Your task to perform on an android device: open chrome and create a bookmark for the current page Image 0: 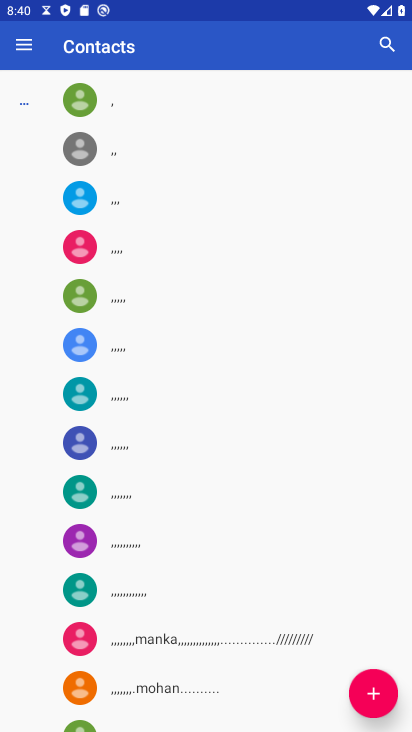
Step 0: press home button
Your task to perform on an android device: open chrome and create a bookmark for the current page Image 1: 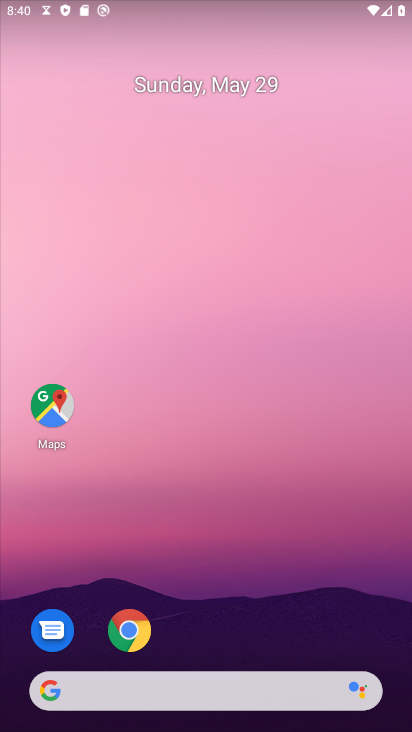
Step 1: click (138, 629)
Your task to perform on an android device: open chrome and create a bookmark for the current page Image 2: 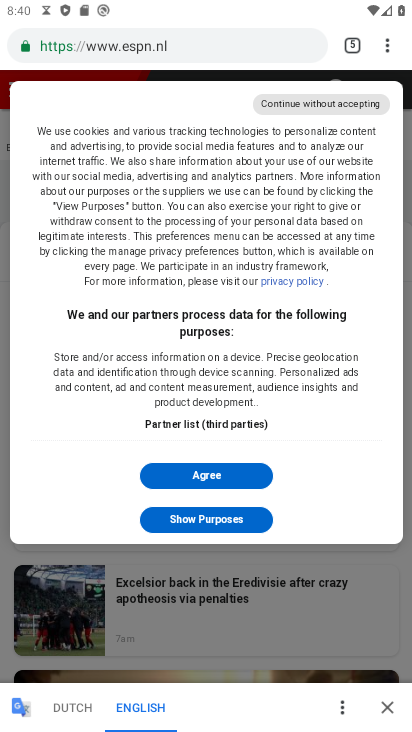
Step 2: click (388, 38)
Your task to perform on an android device: open chrome and create a bookmark for the current page Image 3: 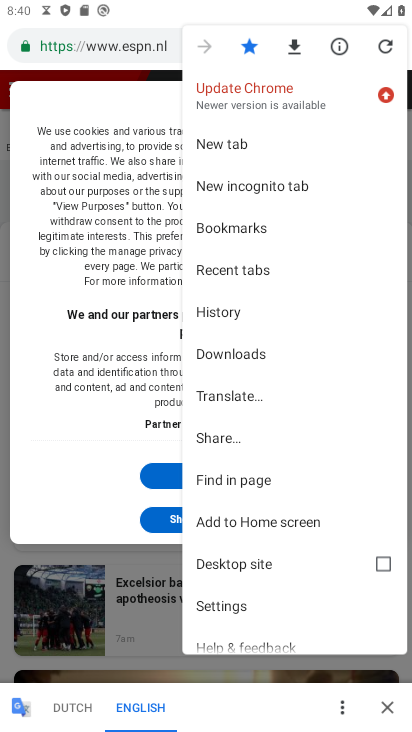
Step 3: task complete